Your task to perform on an android device: open a bookmark in the chrome app Image 0: 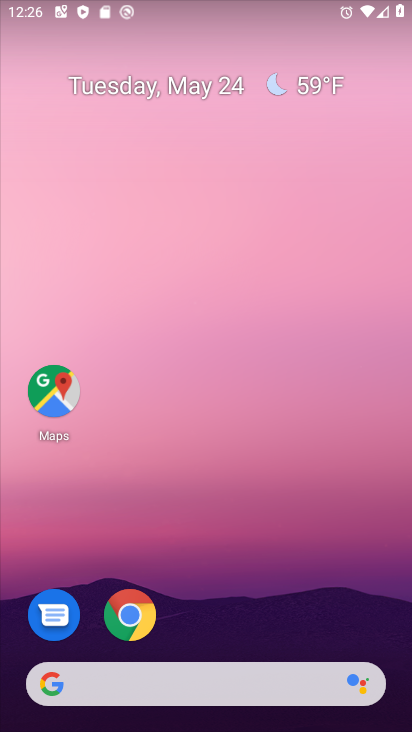
Step 0: drag from (276, 478) to (224, 13)
Your task to perform on an android device: open a bookmark in the chrome app Image 1: 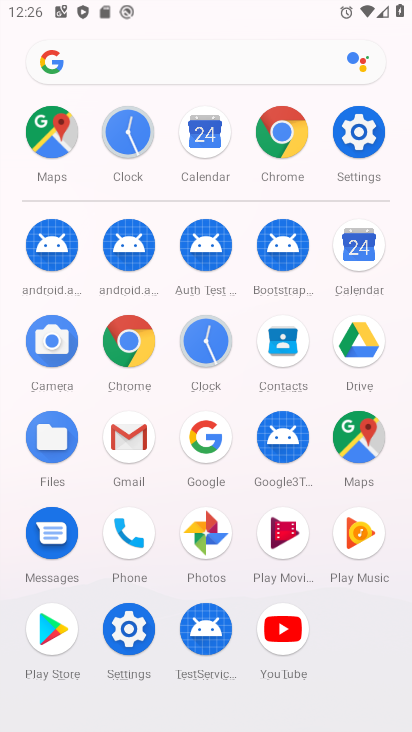
Step 1: drag from (21, 577) to (14, 244)
Your task to perform on an android device: open a bookmark in the chrome app Image 2: 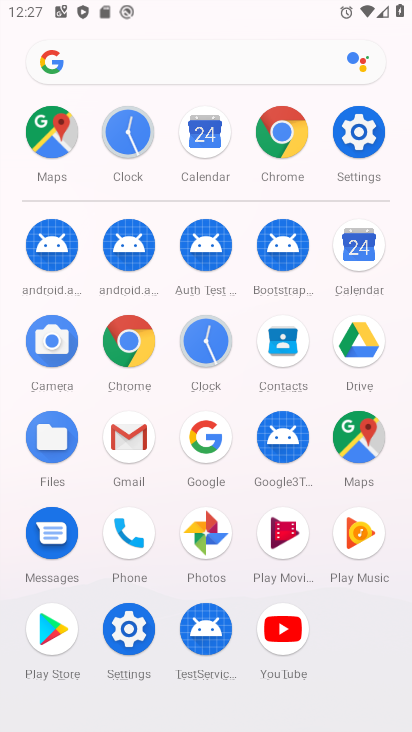
Step 2: click (132, 333)
Your task to perform on an android device: open a bookmark in the chrome app Image 3: 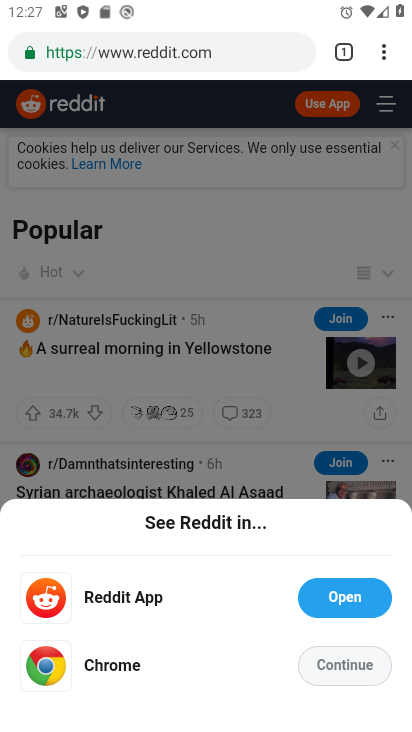
Step 3: task complete